Your task to perform on an android device: Go to Yahoo.com Image 0: 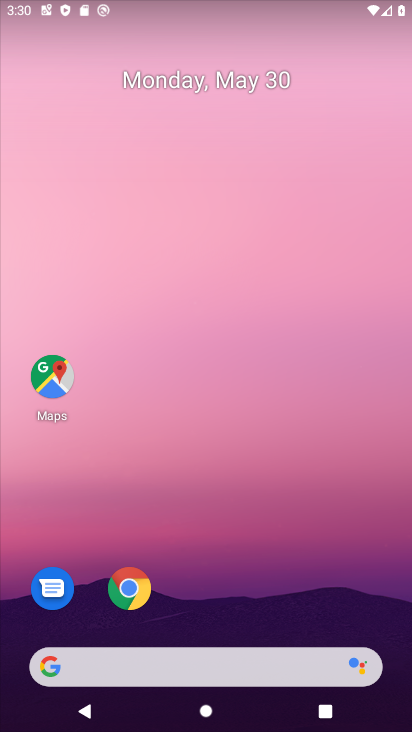
Step 0: drag from (279, 497) to (234, 64)
Your task to perform on an android device: Go to Yahoo.com Image 1: 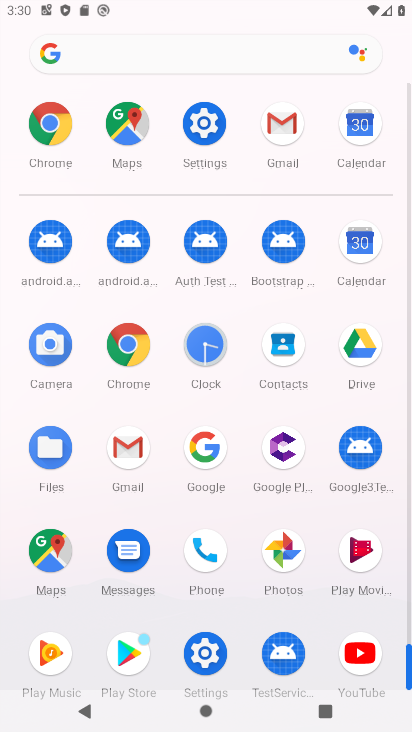
Step 1: drag from (12, 590) to (24, 333)
Your task to perform on an android device: Go to Yahoo.com Image 2: 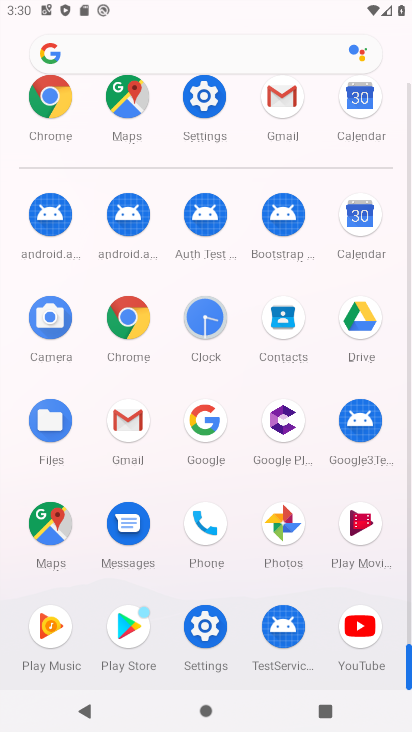
Step 2: click (125, 313)
Your task to perform on an android device: Go to Yahoo.com Image 3: 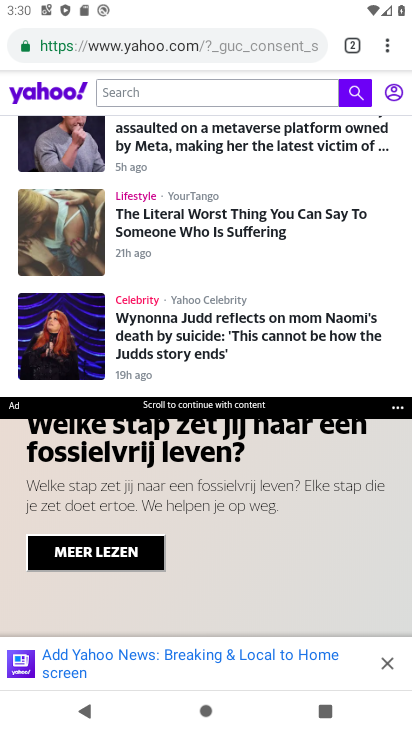
Step 3: task complete